Your task to perform on an android device: turn off notifications settings in the gmail app Image 0: 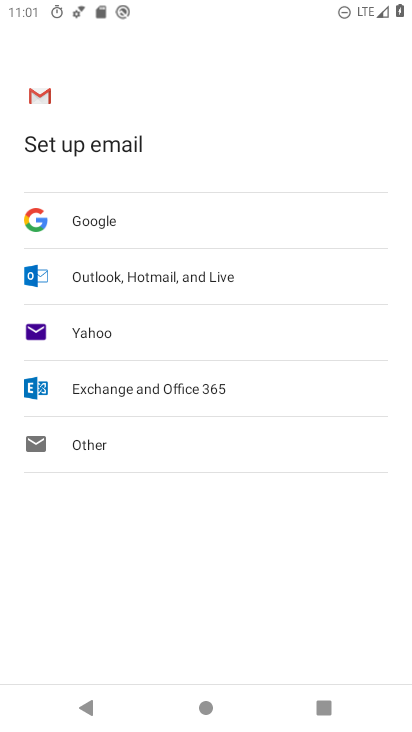
Step 0: press back button
Your task to perform on an android device: turn off notifications settings in the gmail app Image 1: 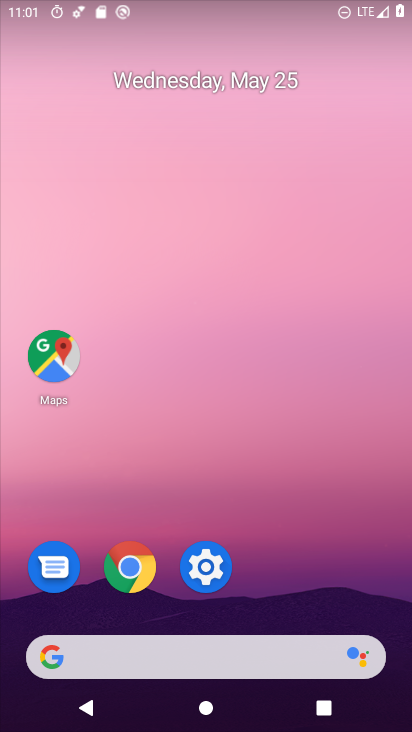
Step 1: drag from (256, 690) to (117, 97)
Your task to perform on an android device: turn off notifications settings in the gmail app Image 2: 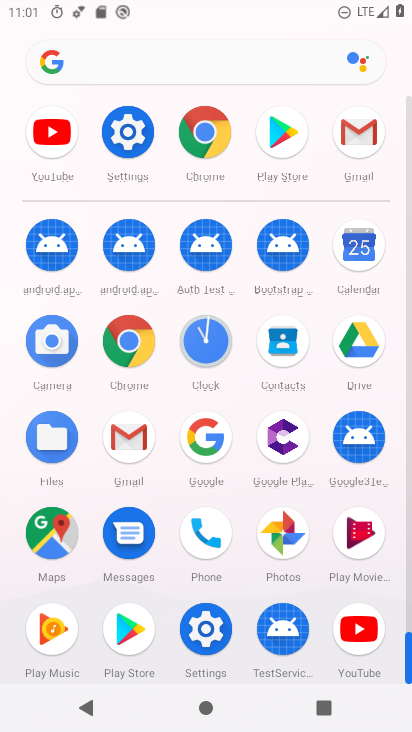
Step 2: click (125, 435)
Your task to perform on an android device: turn off notifications settings in the gmail app Image 3: 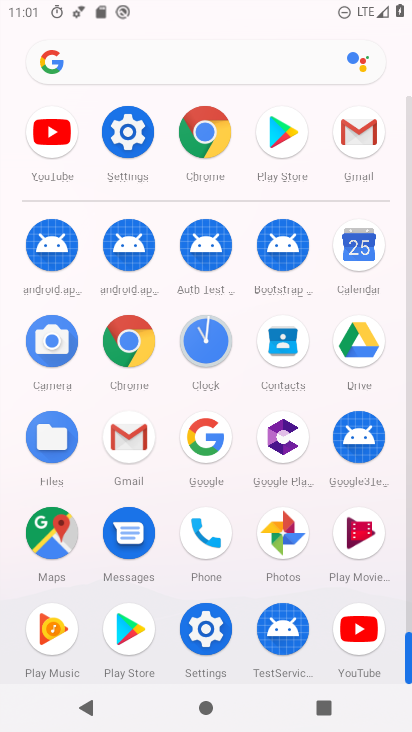
Step 3: click (125, 435)
Your task to perform on an android device: turn off notifications settings in the gmail app Image 4: 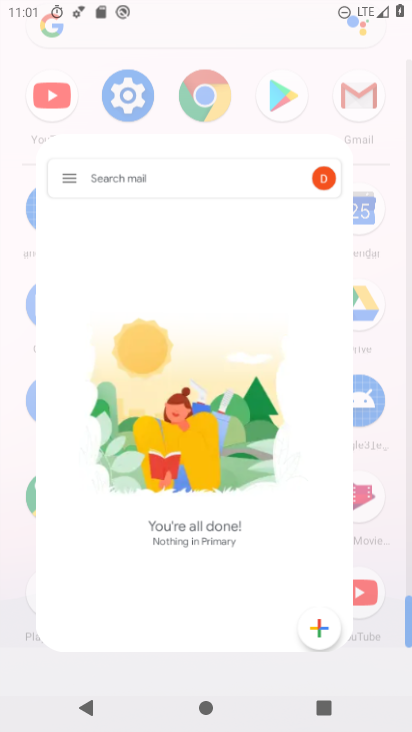
Step 4: click (125, 435)
Your task to perform on an android device: turn off notifications settings in the gmail app Image 5: 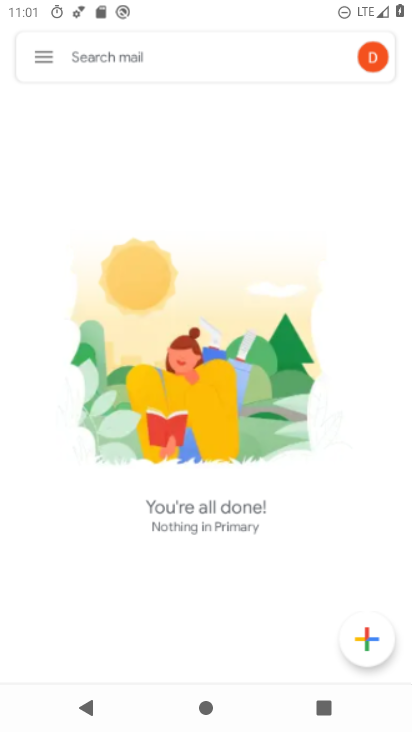
Step 5: click (125, 435)
Your task to perform on an android device: turn off notifications settings in the gmail app Image 6: 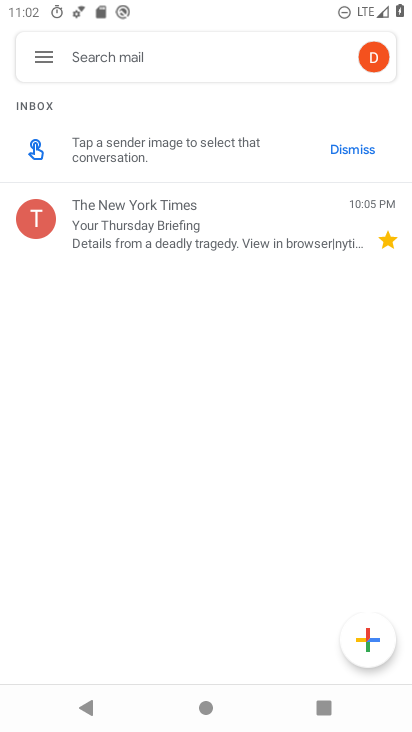
Step 6: press back button
Your task to perform on an android device: turn off notifications settings in the gmail app Image 7: 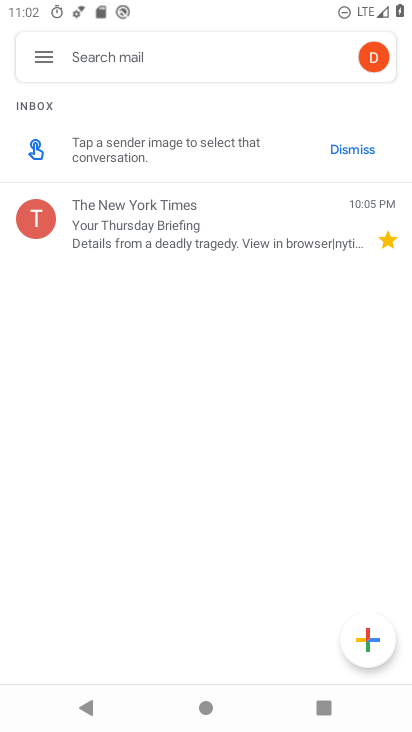
Step 7: press back button
Your task to perform on an android device: turn off notifications settings in the gmail app Image 8: 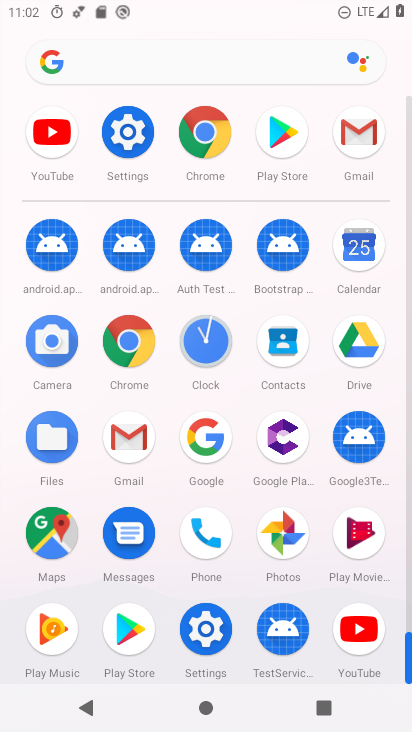
Step 8: press back button
Your task to perform on an android device: turn off notifications settings in the gmail app Image 9: 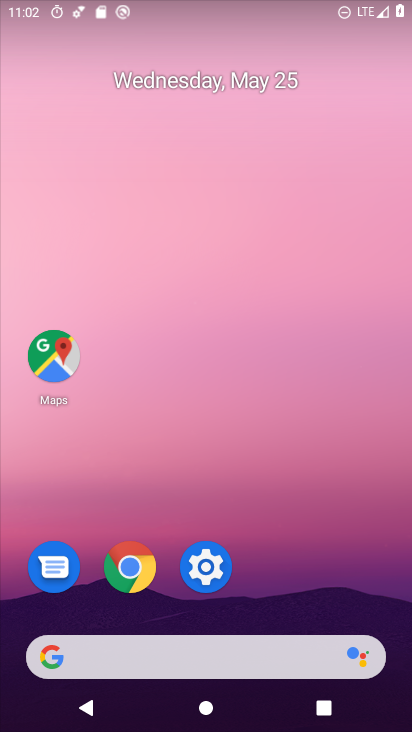
Step 9: drag from (283, 704) to (172, 75)
Your task to perform on an android device: turn off notifications settings in the gmail app Image 10: 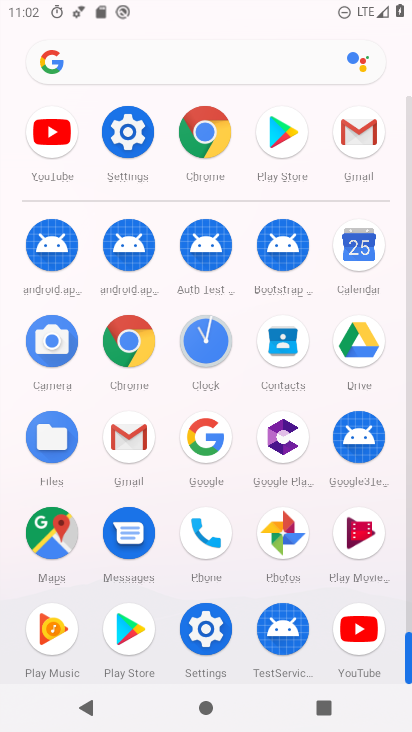
Step 10: click (142, 437)
Your task to perform on an android device: turn off notifications settings in the gmail app Image 11: 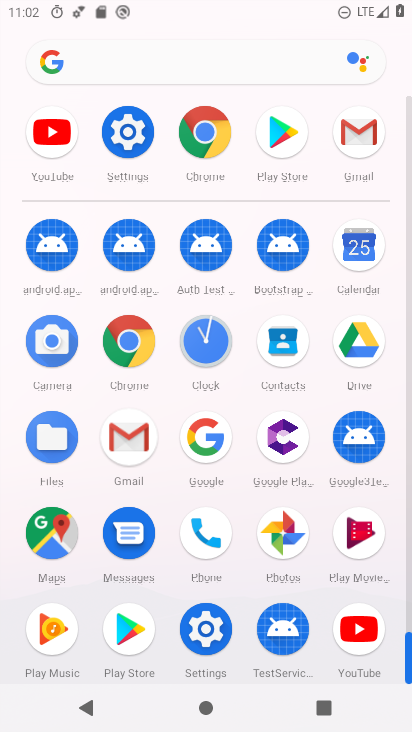
Step 11: click (139, 433)
Your task to perform on an android device: turn off notifications settings in the gmail app Image 12: 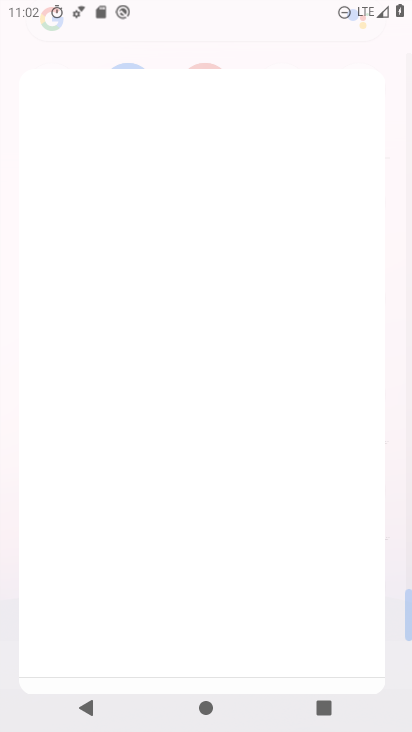
Step 12: click (139, 431)
Your task to perform on an android device: turn off notifications settings in the gmail app Image 13: 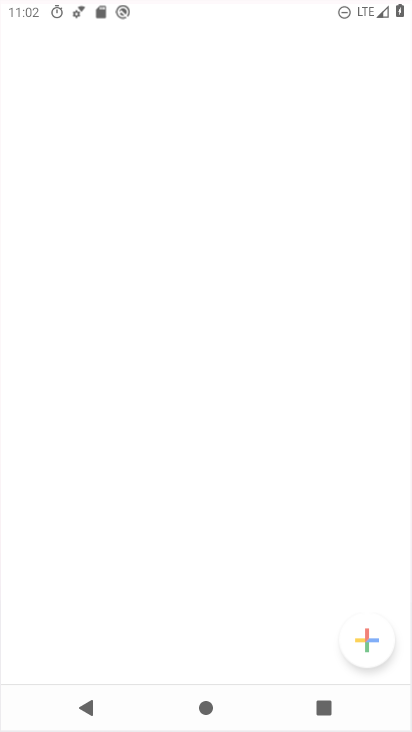
Step 13: click (137, 429)
Your task to perform on an android device: turn off notifications settings in the gmail app Image 14: 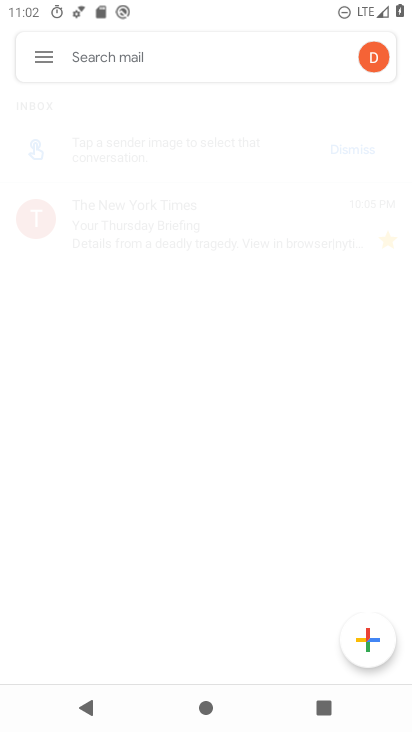
Step 14: click (137, 429)
Your task to perform on an android device: turn off notifications settings in the gmail app Image 15: 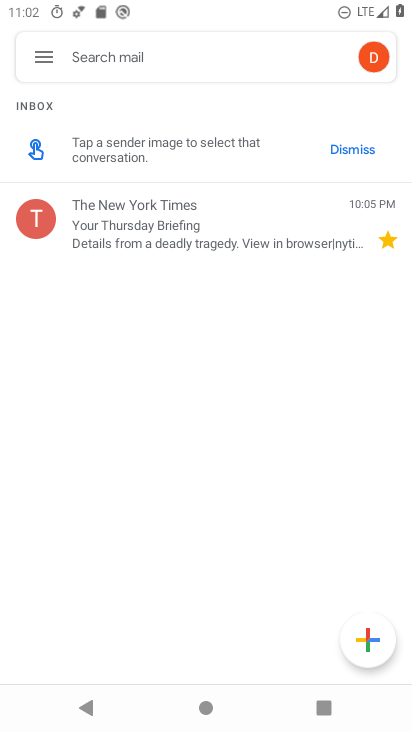
Step 15: click (36, 53)
Your task to perform on an android device: turn off notifications settings in the gmail app Image 16: 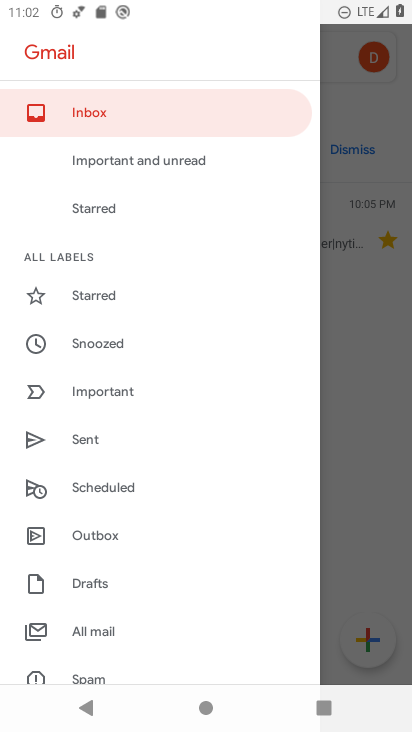
Step 16: drag from (115, 492) to (122, 158)
Your task to perform on an android device: turn off notifications settings in the gmail app Image 17: 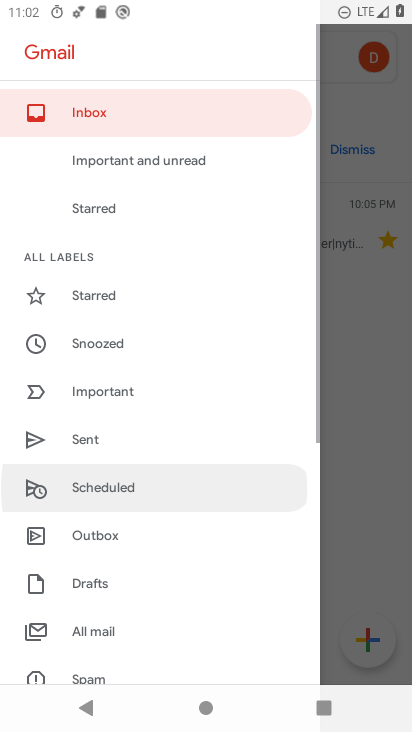
Step 17: drag from (152, 142) to (152, 107)
Your task to perform on an android device: turn off notifications settings in the gmail app Image 18: 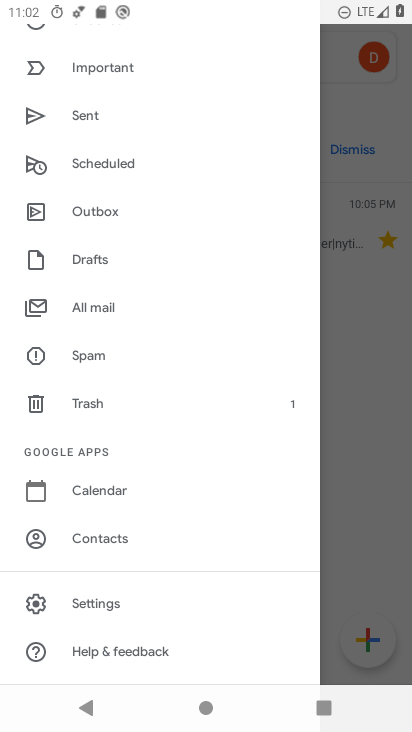
Step 18: click (87, 592)
Your task to perform on an android device: turn off notifications settings in the gmail app Image 19: 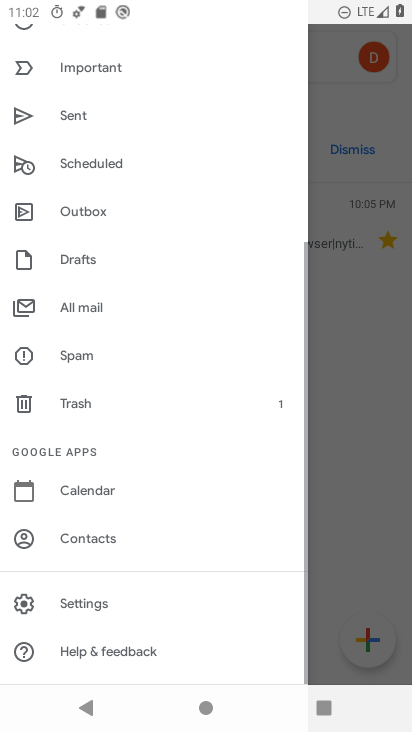
Step 19: click (87, 592)
Your task to perform on an android device: turn off notifications settings in the gmail app Image 20: 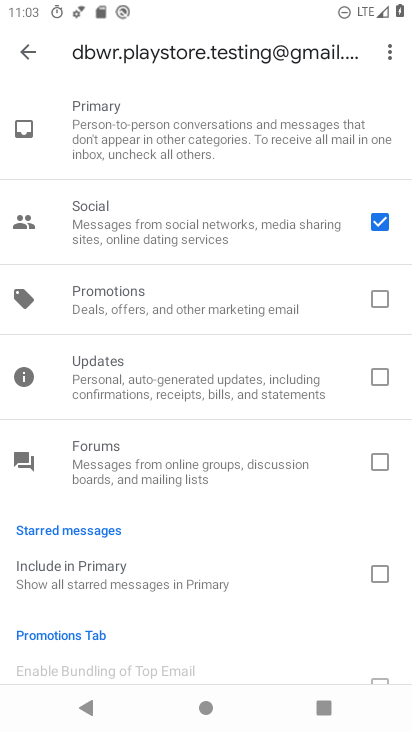
Step 20: drag from (126, 368) to (185, 427)
Your task to perform on an android device: turn off notifications settings in the gmail app Image 21: 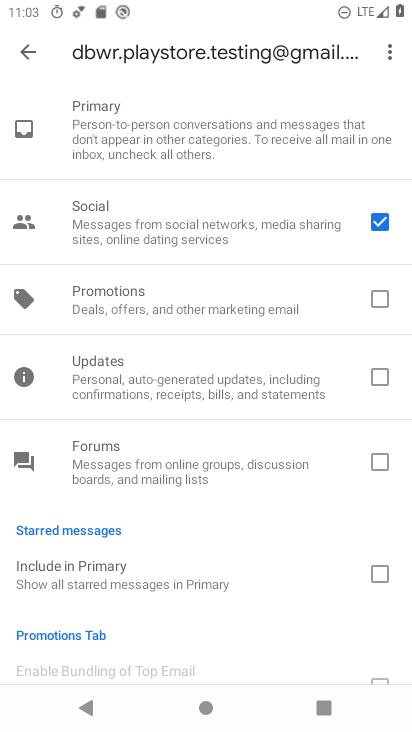
Step 21: click (22, 50)
Your task to perform on an android device: turn off notifications settings in the gmail app Image 22: 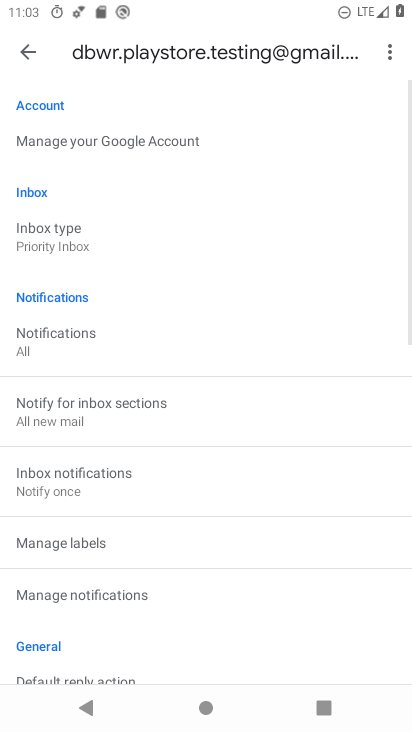
Step 22: click (41, 330)
Your task to perform on an android device: turn off notifications settings in the gmail app Image 23: 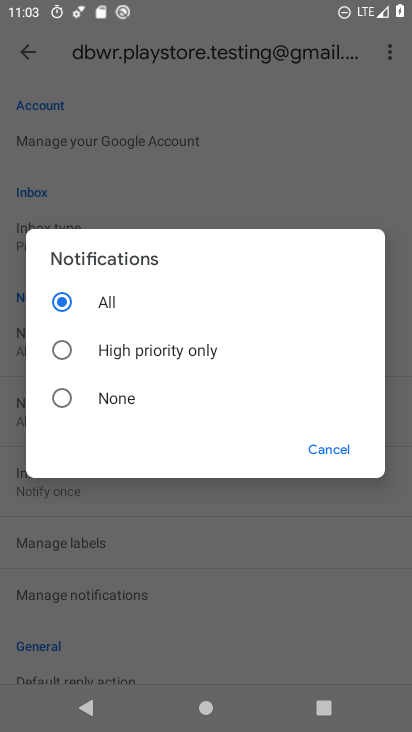
Step 23: click (59, 396)
Your task to perform on an android device: turn off notifications settings in the gmail app Image 24: 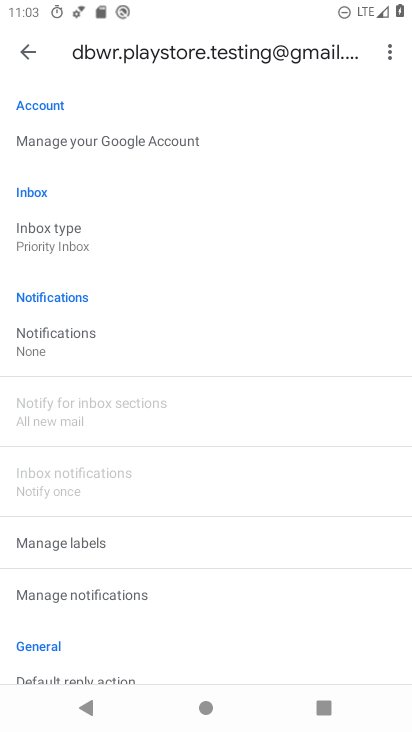
Step 24: task complete